Your task to perform on an android device: What's the weather? Image 0: 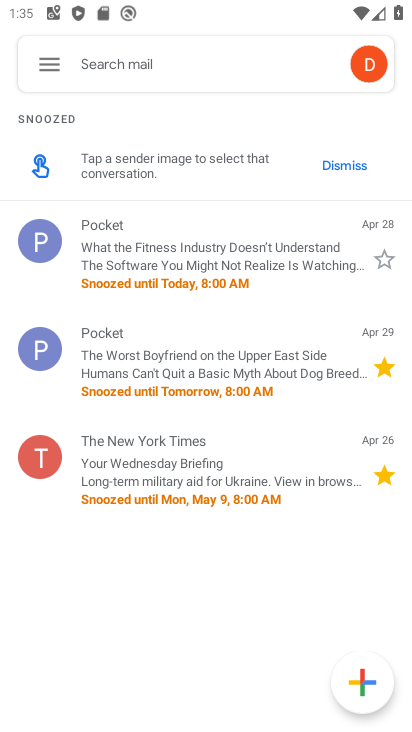
Step 0: press home button
Your task to perform on an android device: What's the weather? Image 1: 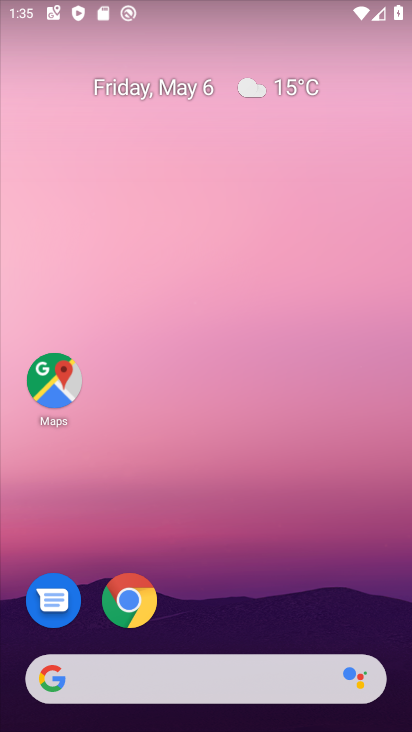
Step 1: drag from (251, 626) to (249, 65)
Your task to perform on an android device: What's the weather? Image 2: 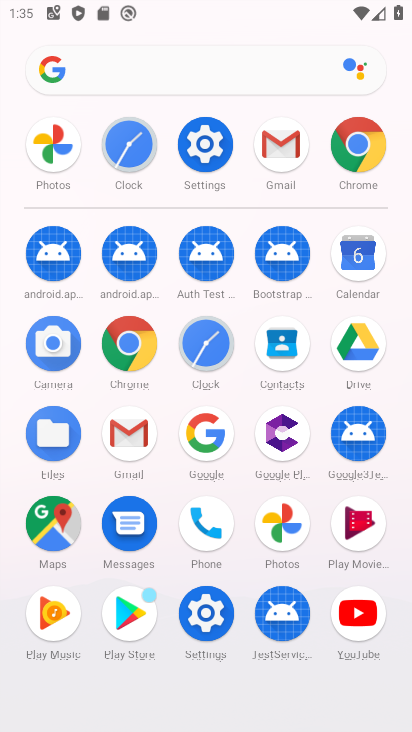
Step 2: press home button
Your task to perform on an android device: What's the weather? Image 3: 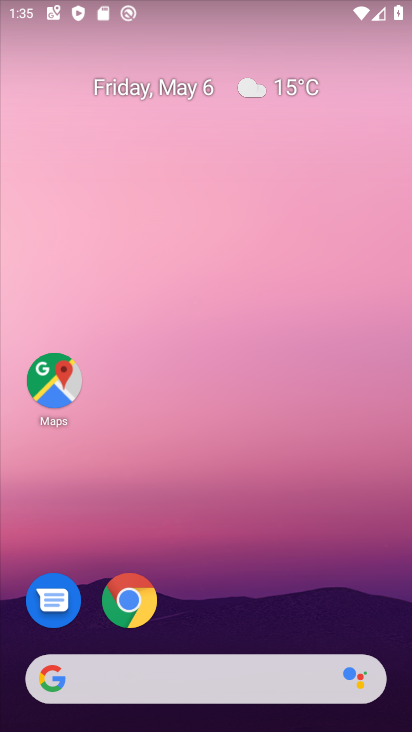
Step 3: click (300, 91)
Your task to perform on an android device: What's the weather? Image 4: 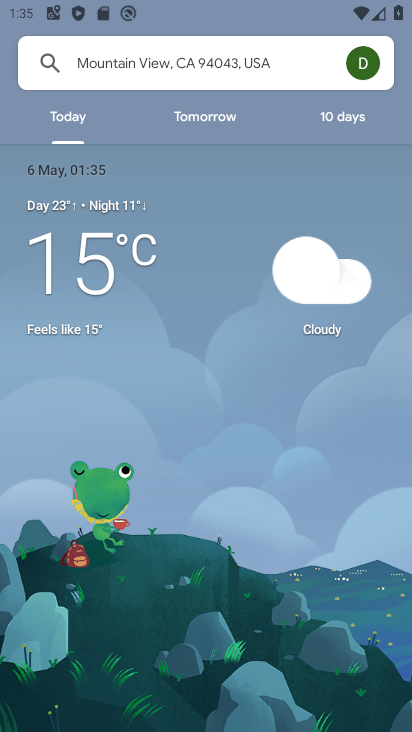
Step 4: task complete